Your task to perform on an android device: check the backup settings in the google photos Image 0: 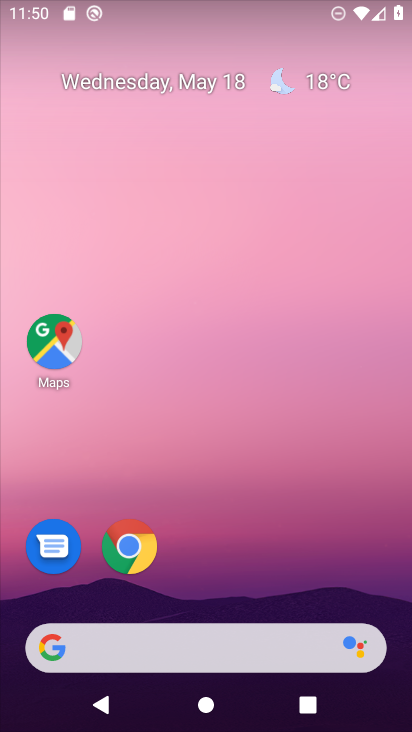
Step 0: drag from (220, 724) to (250, 57)
Your task to perform on an android device: check the backup settings in the google photos Image 1: 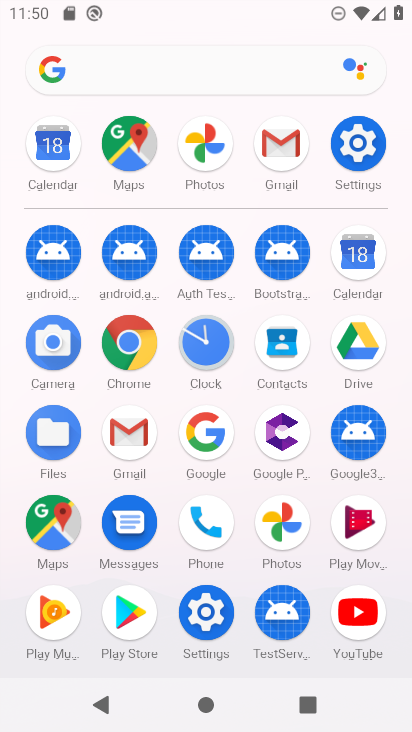
Step 1: click (284, 515)
Your task to perform on an android device: check the backup settings in the google photos Image 2: 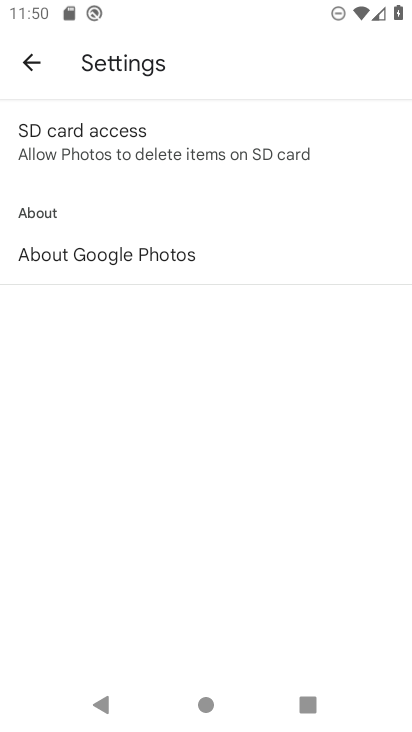
Step 2: click (28, 54)
Your task to perform on an android device: check the backup settings in the google photos Image 3: 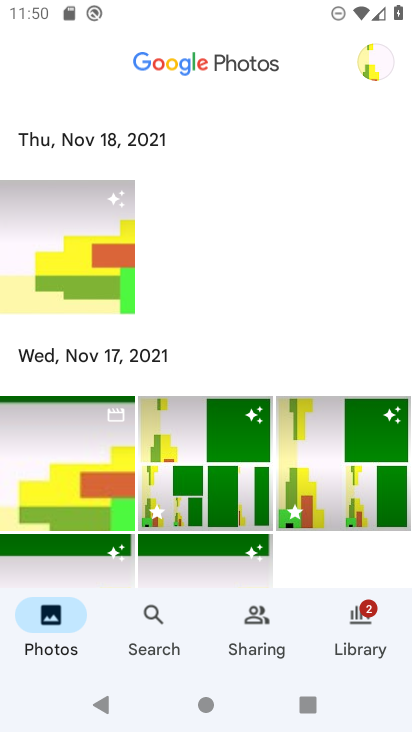
Step 3: click (381, 58)
Your task to perform on an android device: check the backup settings in the google photos Image 4: 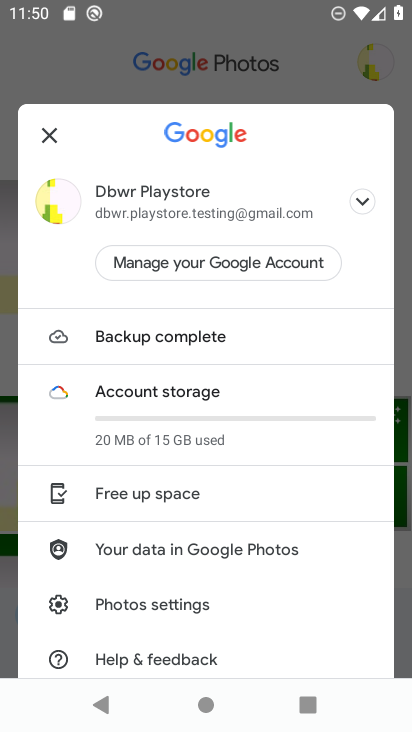
Step 4: drag from (159, 602) to (170, 374)
Your task to perform on an android device: check the backup settings in the google photos Image 5: 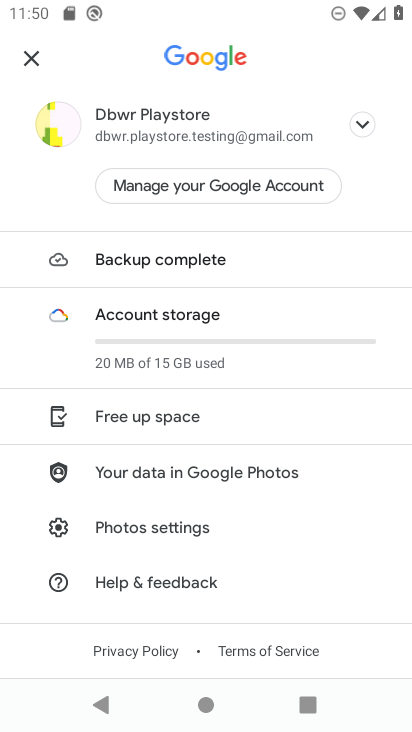
Step 5: click (135, 524)
Your task to perform on an android device: check the backup settings in the google photos Image 6: 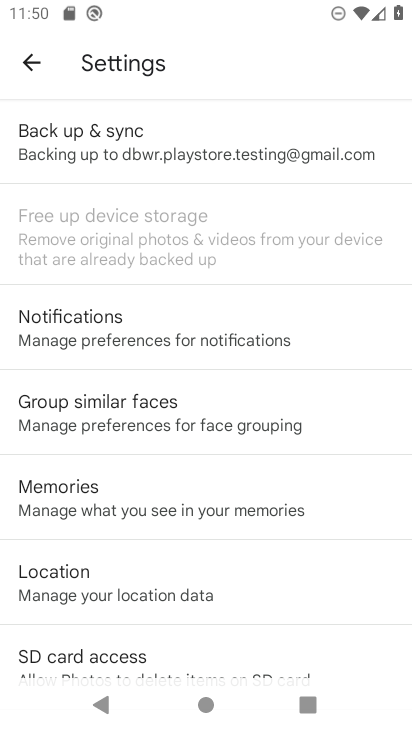
Step 6: click (110, 140)
Your task to perform on an android device: check the backup settings in the google photos Image 7: 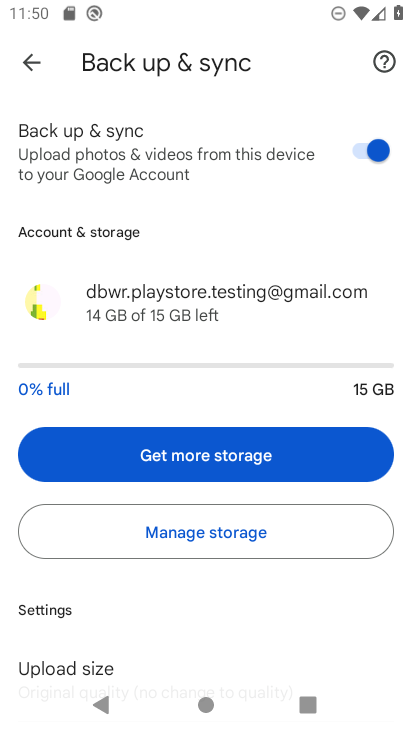
Step 7: task complete